Your task to perform on an android device: add a contact Image 0: 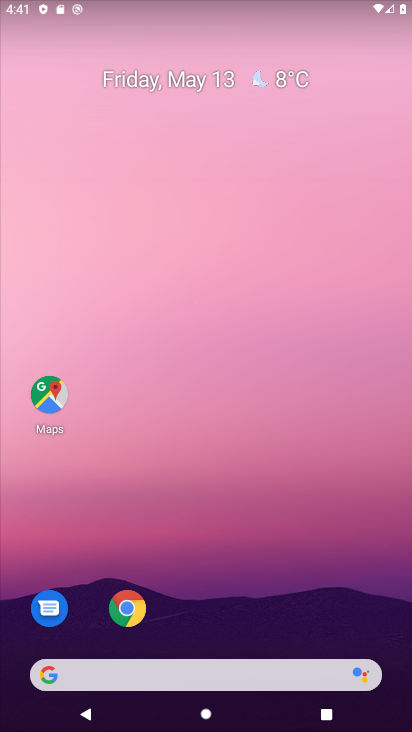
Step 0: drag from (257, 581) to (203, 106)
Your task to perform on an android device: add a contact Image 1: 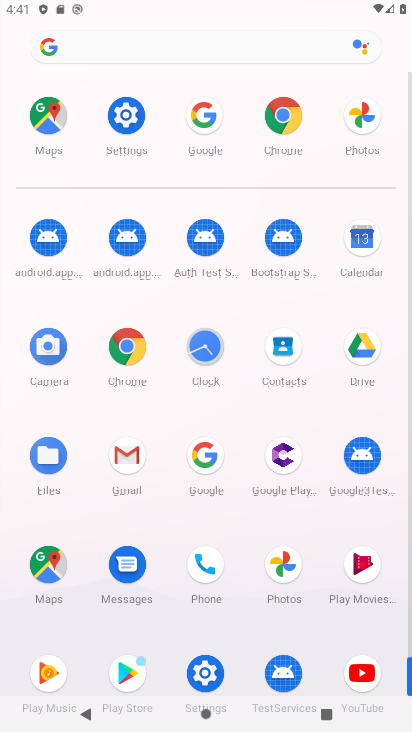
Step 1: click (286, 346)
Your task to perform on an android device: add a contact Image 2: 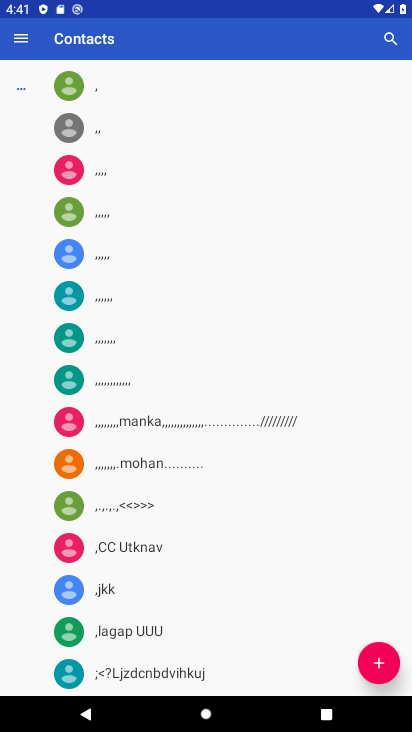
Step 2: click (379, 667)
Your task to perform on an android device: add a contact Image 3: 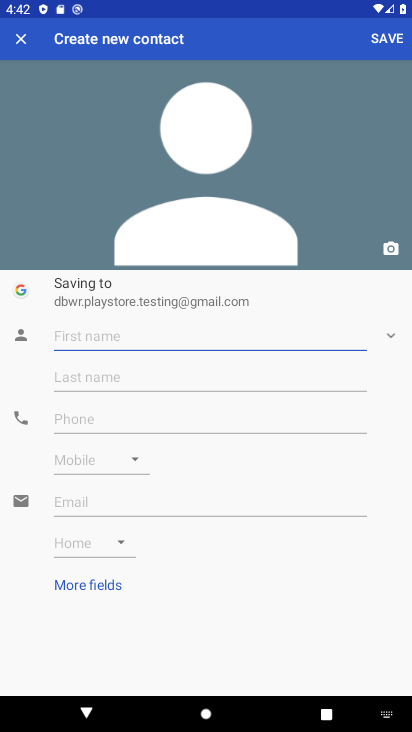
Step 3: click (99, 340)
Your task to perform on an android device: add a contact Image 4: 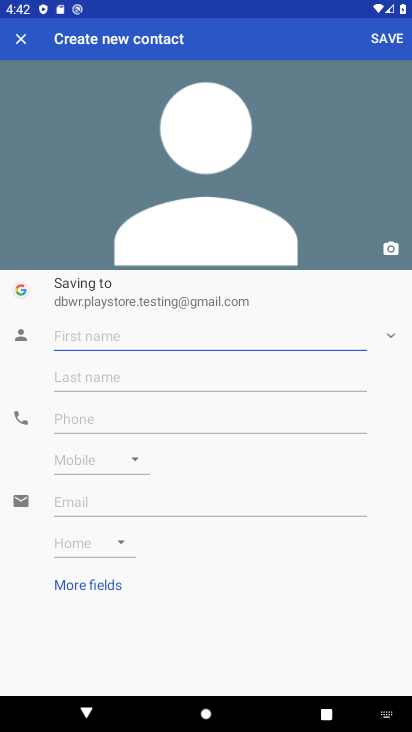
Step 4: type "Shriniwasan yedueappa"
Your task to perform on an android device: add a contact Image 5: 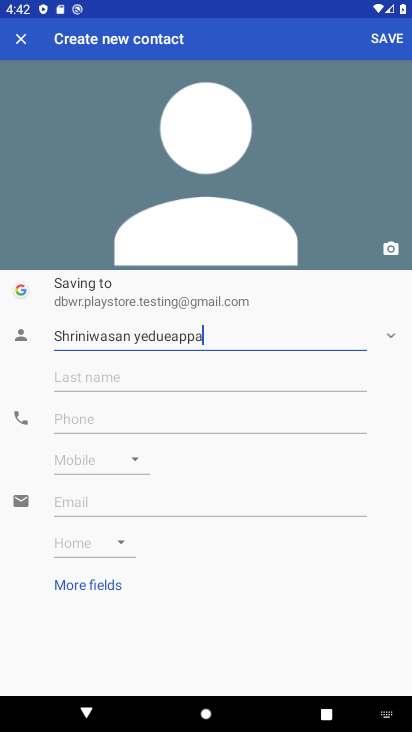
Step 5: type ""
Your task to perform on an android device: add a contact Image 6: 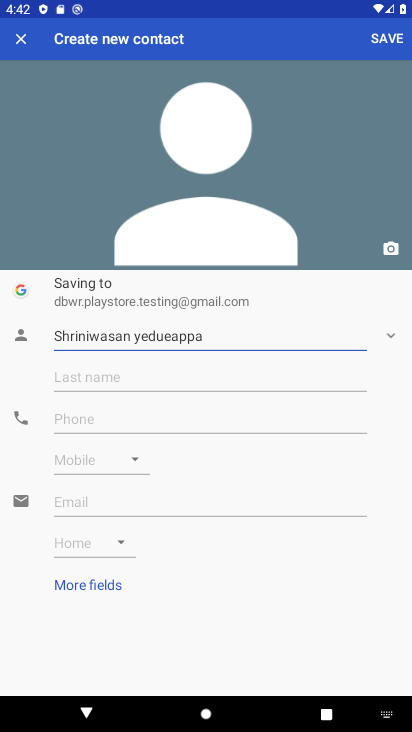
Step 6: click (149, 376)
Your task to perform on an android device: add a contact Image 7: 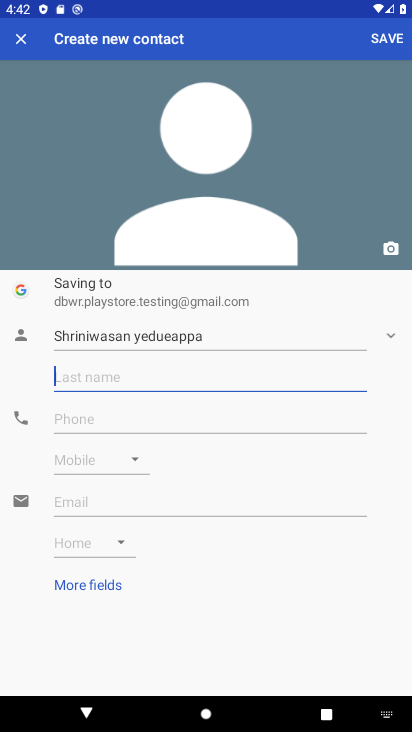
Step 7: click (121, 418)
Your task to perform on an android device: add a contact Image 8: 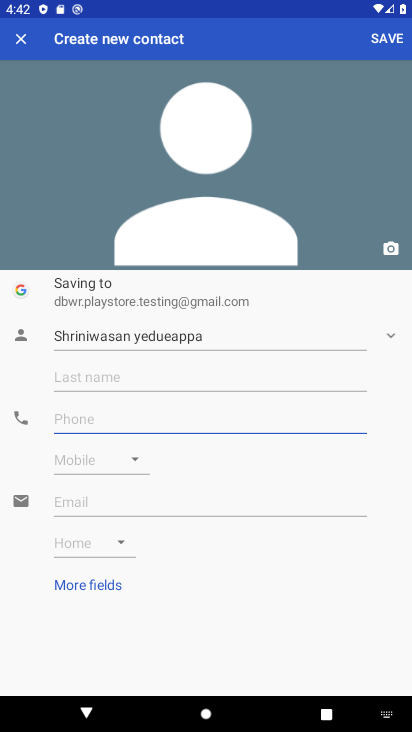
Step 8: type "0987678543456"
Your task to perform on an android device: add a contact Image 9: 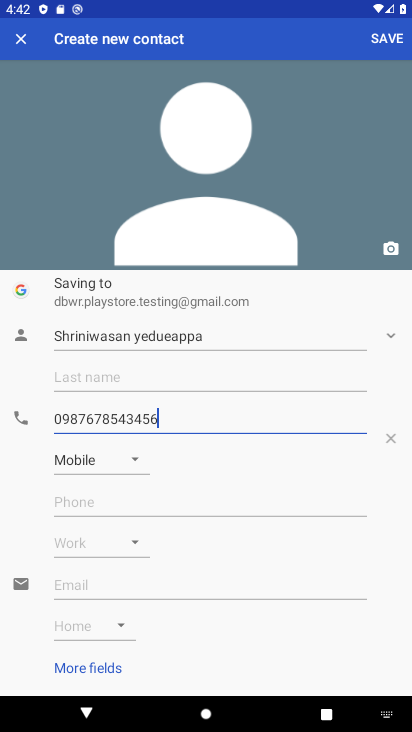
Step 9: type ""
Your task to perform on an android device: add a contact Image 10: 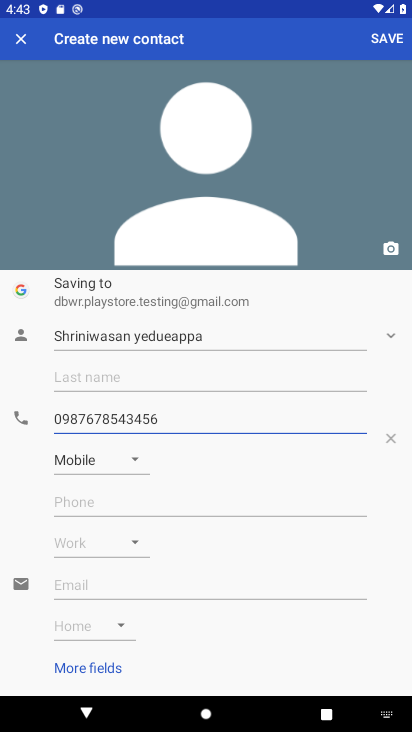
Step 10: click (393, 31)
Your task to perform on an android device: add a contact Image 11: 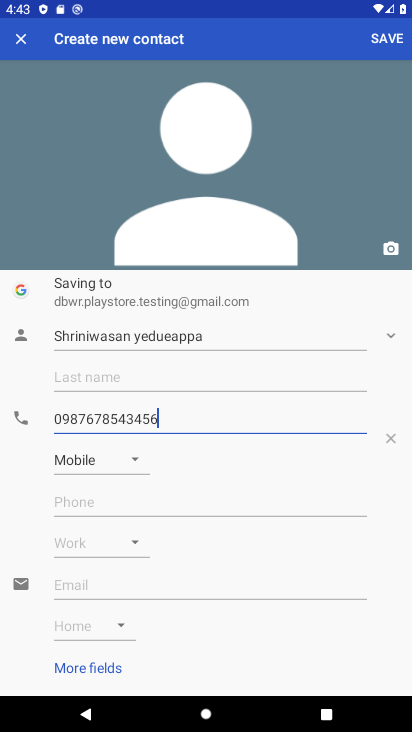
Step 11: click (385, 38)
Your task to perform on an android device: add a contact Image 12: 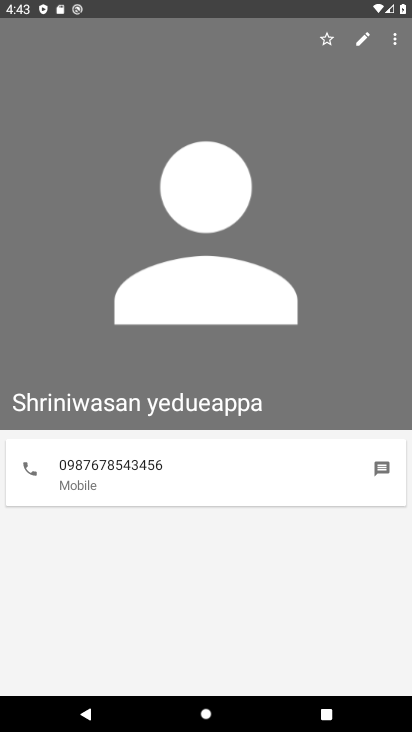
Step 12: task complete